Your task to perform on an android device: see creations saved in the google photos Image 0: 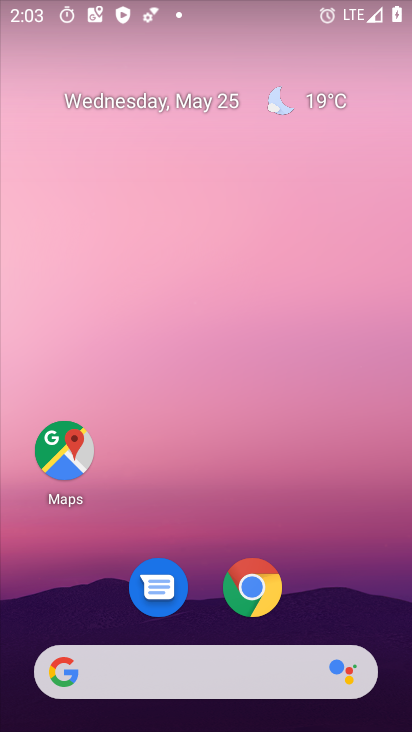
Step 0: drag from (209, 726) to (188, 95)
Your task to perform on an android device: see creations saved in the google photos Image 1: 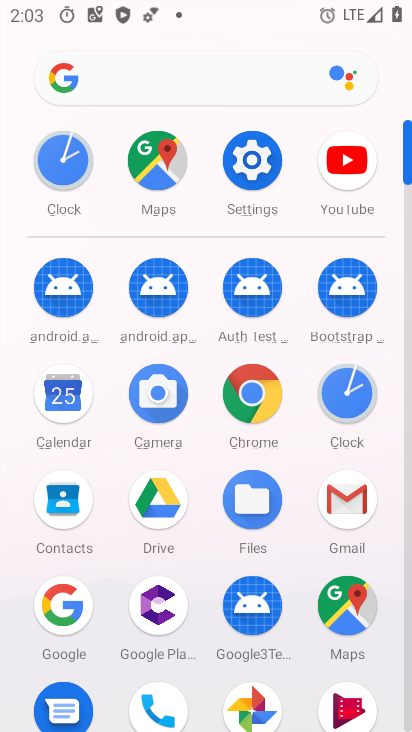
Step 1: drag from (199, 633) to (214, 184)
Your task to perform on an android device: see creations saved in the google photos Image 2: 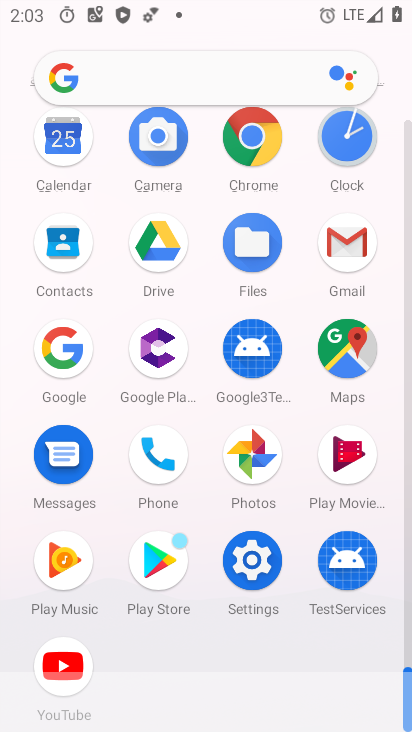
Step 2: click (255, 453)
Your task to perform on an android device: see creations saved in the google photos Image 3: 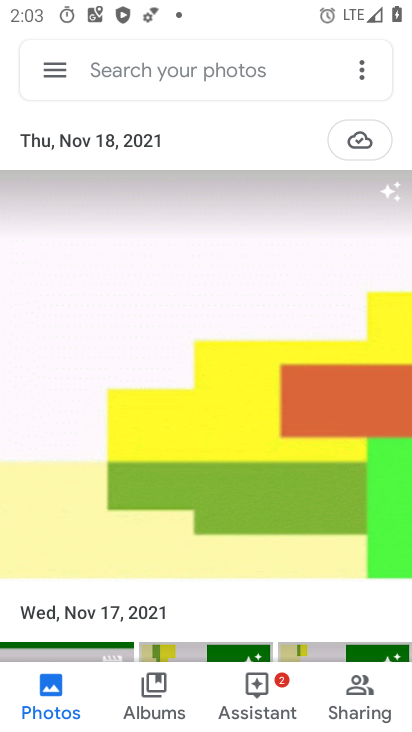
Step 3: click (161, 73)
Your task to perform on an android device: see creations saved in the google photos Image 4: 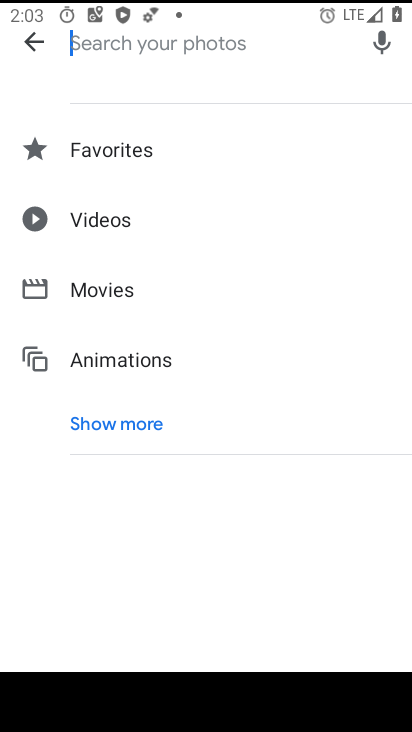
Step 4: click (116, 429)
Your task to perform on an android device: see creations saved in the google photos Image 5: 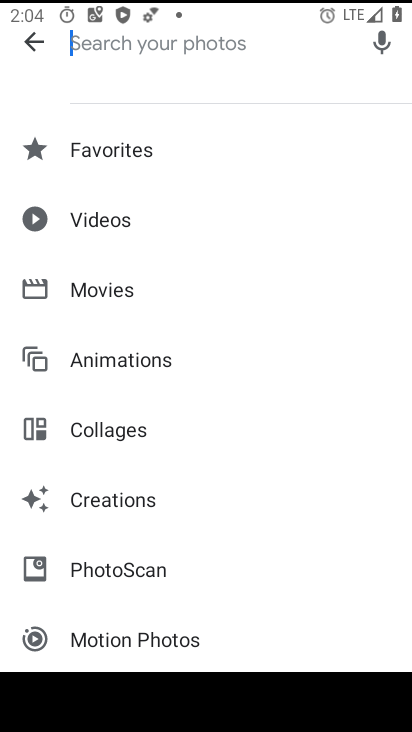
Step 5: click (116, 498)
Your task to perform on an android device: see creations saved in the google photos Image 6: 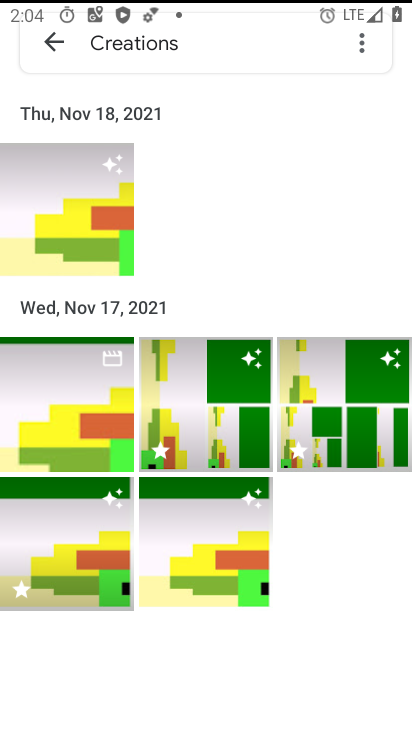
Step 6: task complete